Your task to perform on an android device: turn pop-ups off in chrome Image 0: 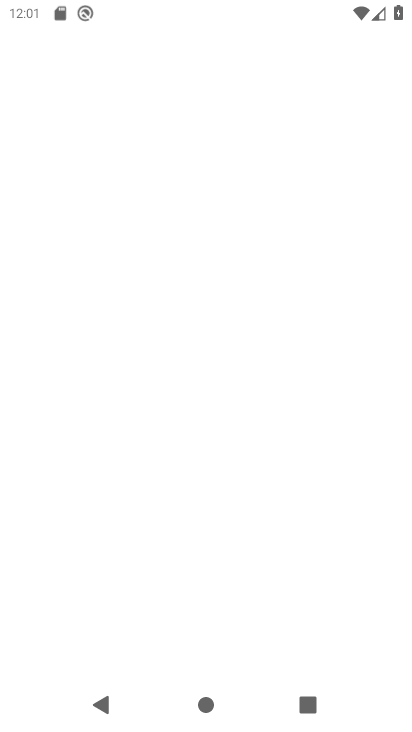
Step 0: press home button
Your task to perform on an android device: turn pop-ups off in chrome Image 1: 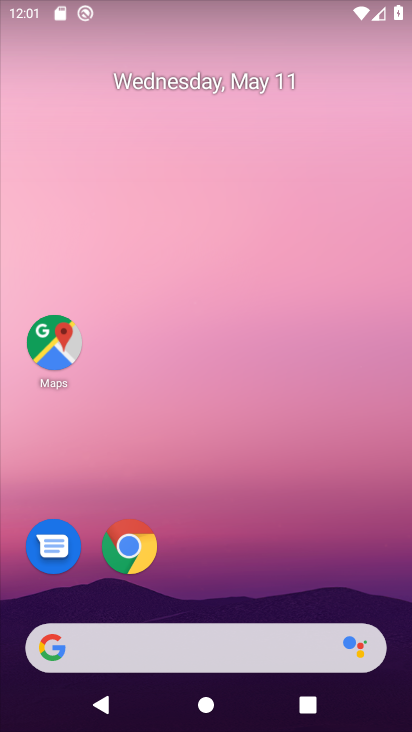
Step 1: drag from (223, 570) to (276, 227)
Your task to perform on an android device: turn pop-ups off in chrome Image 2: 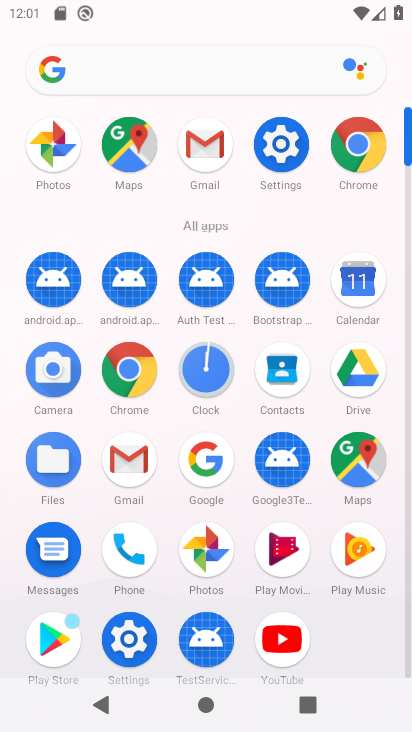
Step 2: click (355, 153)
Your task to perform on an android device: turn pop-ups off in chrome Image 3: 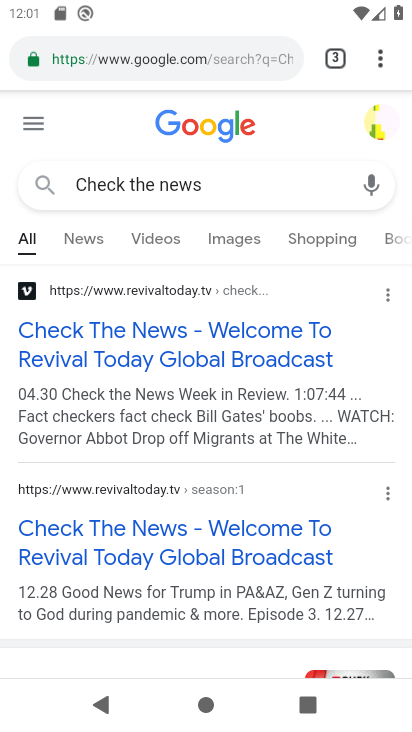
Step 3: click (369, 61)
Your task to perform on an android device: turn pop-ups off in chrome Image 4: 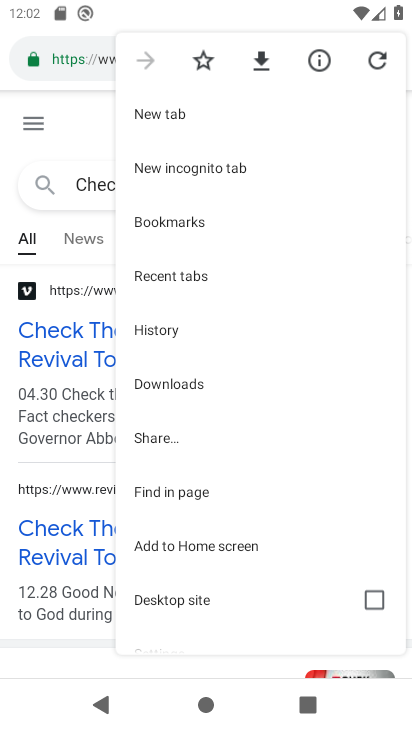
Step 4: drag from (224, 602) to (278, 264)
Your task to perform on an android device: turn pop-ups off in chrome Image 5: 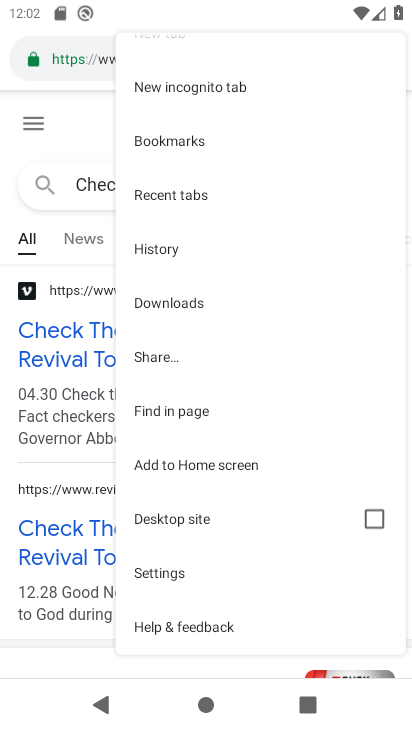
Step 5: click (166, 575)
Your task to perform on an android device: turn pop-ups off in chrome Image 6: 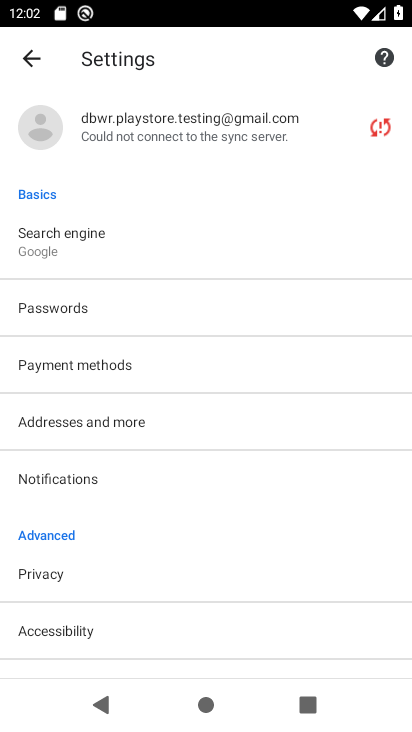
Step 6: drag from (136, 599) to (194, 247)
Your task to perform on an android device: turn pop-ups off in chrome Image 7: 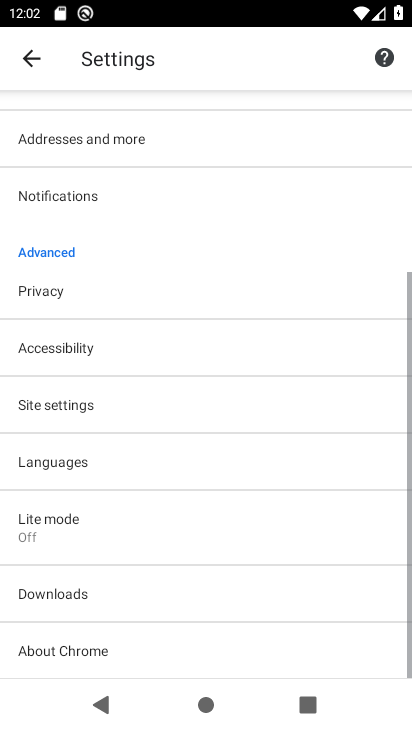
Step 7: drag from (116, 604) to (192, 335)
Your task to perform on an android device: turn pop-ups off in chrome Image 8: 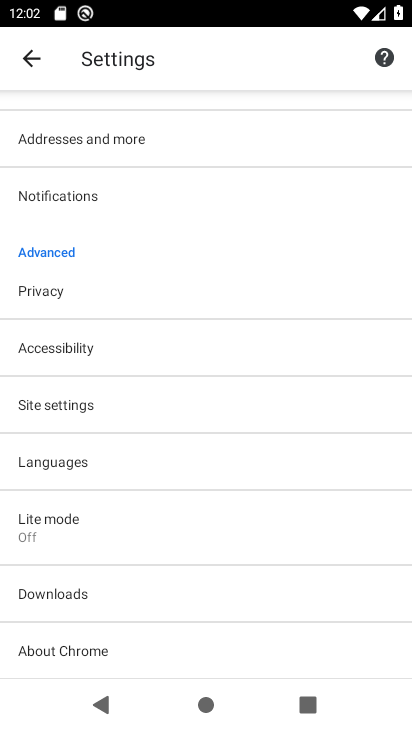
Step 8: click (99, 410)
Your task to perform on an android device: turn pop-ups off in chrome Image 9: 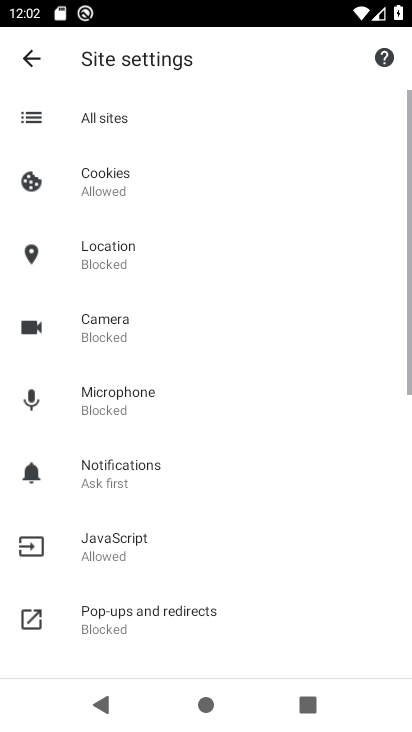
Step 9: click (130, 611)
Your task to perform on an android device: turn pop-ups off in chrome Image 10: 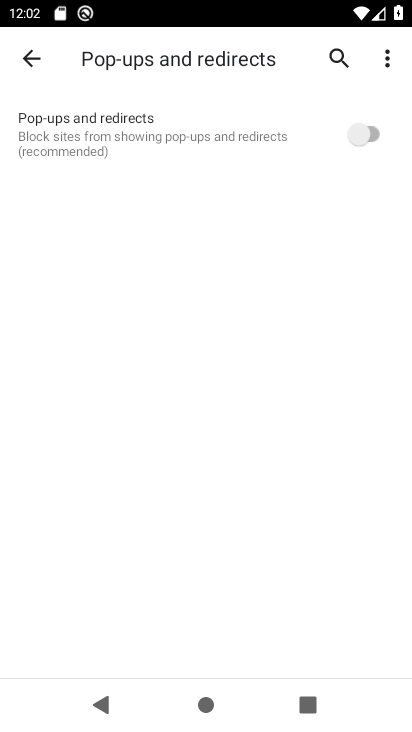
Step 10: task complete